Your task to perform on an android device: open app "Paramount+ | Peak Streaming" (install if not already installed) Image 0: 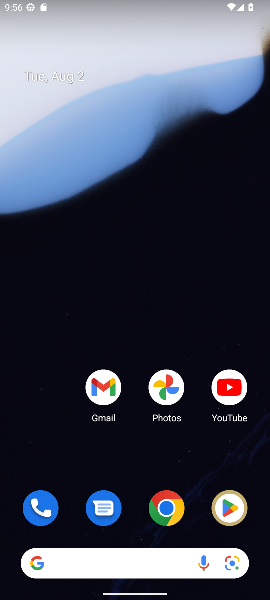
Step 0: click (230, 507)
Your task to perform on an android device: open app "Paramount+ | Peak Streaming" (install if not already installed) Image 1: 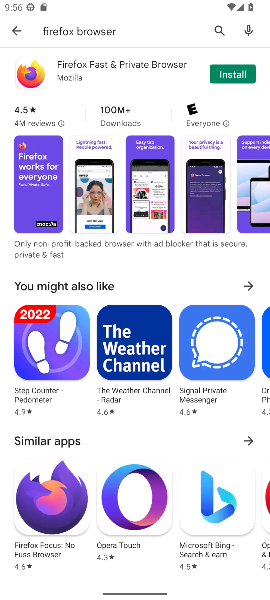
Step 1: click (220, 33)
Your task to perform on an android device: open app "Paramount+ | Peak Streaming" (install if not already installed) Image 2: 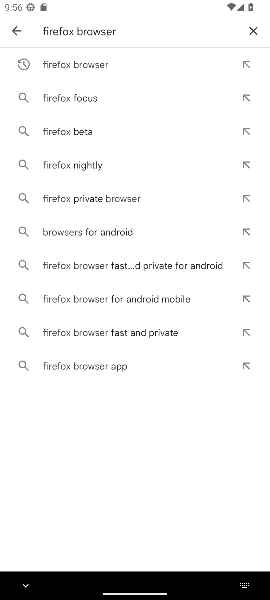
Step 2: click (248, 34)
Your task to perform on an android device: open app "Paramount+ | Peak Streaming" (install if not already installed) Image 3: 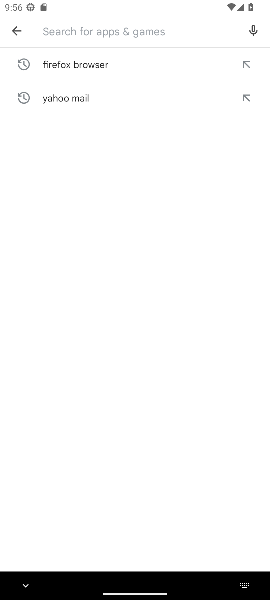
Step 3: type "Paramount+ | Peak Streaming"
Your task to perform on an android device: open app "Paramount+ | Peak Streaming" (install if not already installed) Image 4: 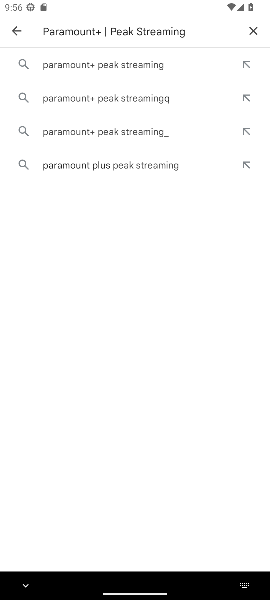
Step 4: click (124, 69)
Your task to perform on an android device: open app "Paramount+ | Peak Streaming" (install if not already installed) Image 5: 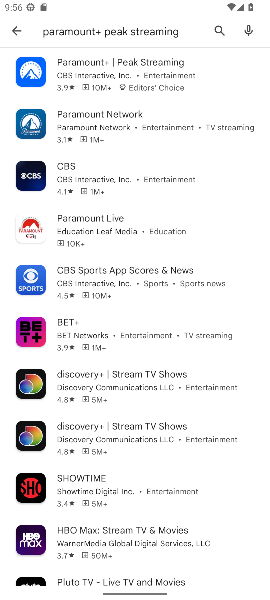
Step 5: click (124, 69)
Your task to perform on an android device: open app "Paramount+ | Peak Streaming" (install if not already installed) Image 6: 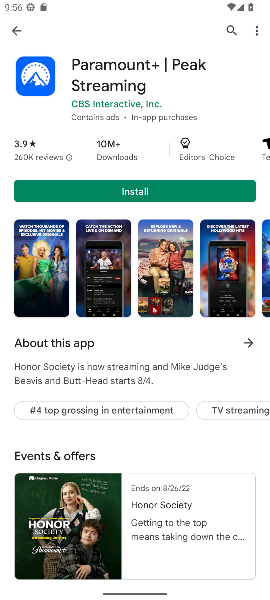
Step 6: click (124, 199)
Your task to perform on an android device: open app "Paramount+ | Peak Streaming" (install if not already installed) Image 7: 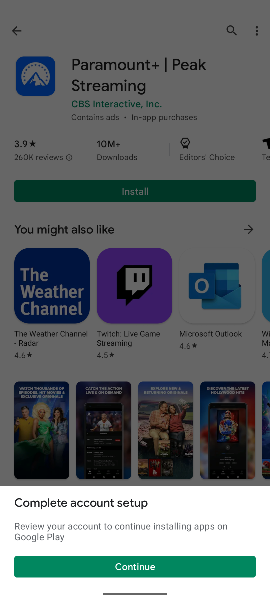
Step 7: click (90, 559)
Your task to perform on an android device: open app "Paramount+ | Peak Streaming" (install if not already installed) Image 8: 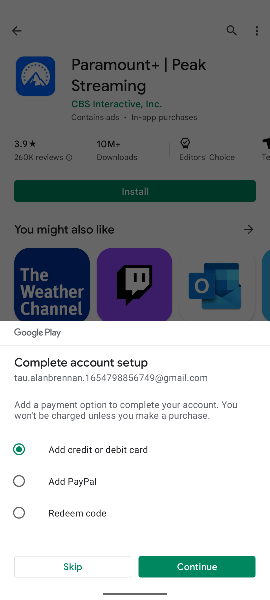
Step 8: click (66, 567)
Your task to perform on an android device: open app "Paramount+ | Peak Streaming" (install if not already installed) Image 9: 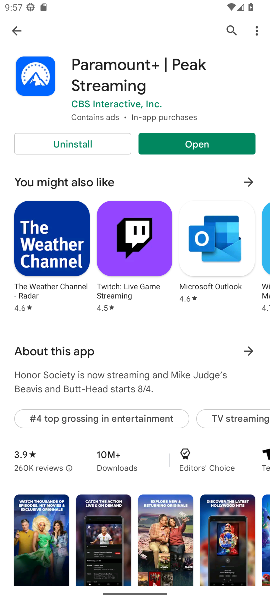
Step 9: click (177, 138)
Your task to perform on an android device: open app "Paramount+ | Peak Streaming" (install if not already installed) Image 10: 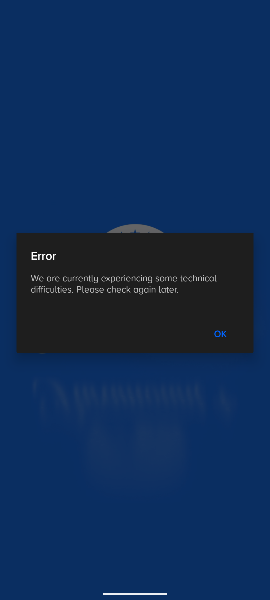
Step 10: task complete